Your task to perform on an android device: turn on the 24-hour format for clock Image 0: 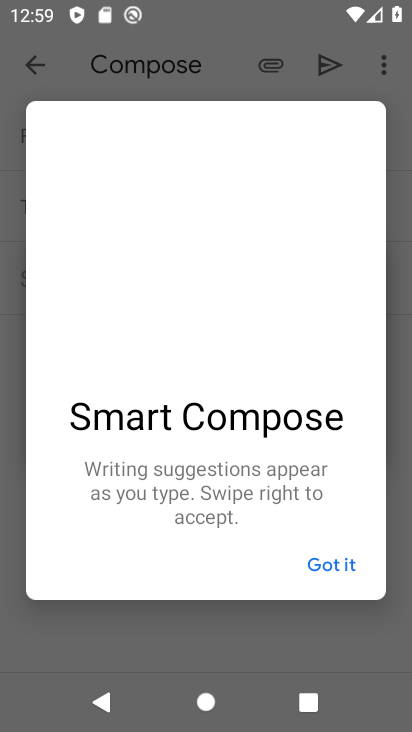
Step 0: press home button
Your task to perform on an android device: turn on the 24-hour format for clock Image 1: 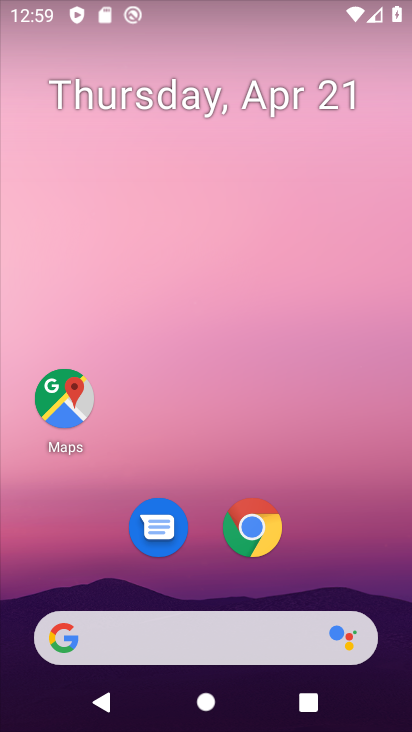
Step 1: drag from (230, 572) to (283, 53)
Your task to perform on an android device: turn on the 24-hour format for clock Image 2: 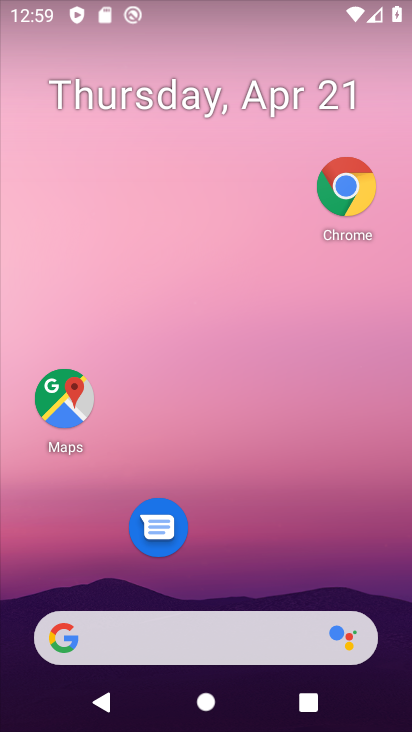
Step 2: drag from (223, 446) to (261, 87)
Your task to perform on an android device: turn on the 24-hour format for clock Image 3: 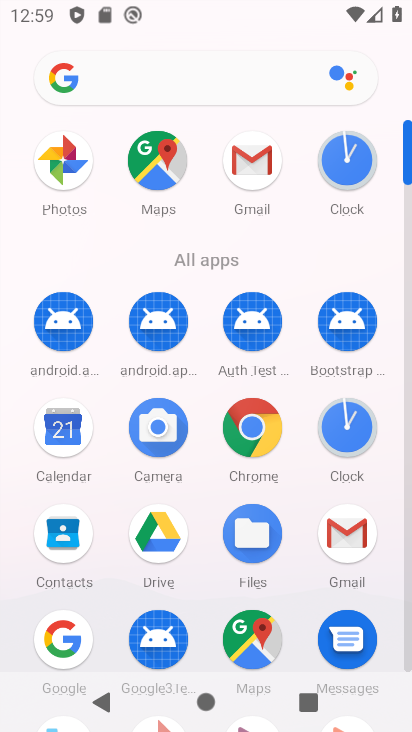
Step 3: click (358, 414)
Your task to perform on an android device: turn on the 24-hour format for clock Image 4: 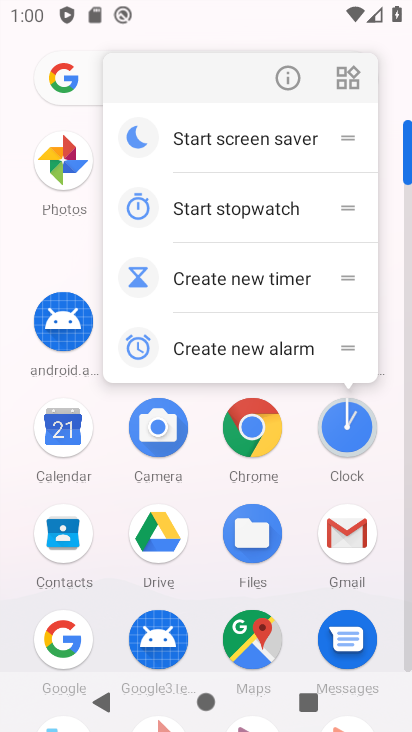
Step 4: click (292, 80)
Your task to perform on an android device: turn on the 24-hour format for clock Image 5: 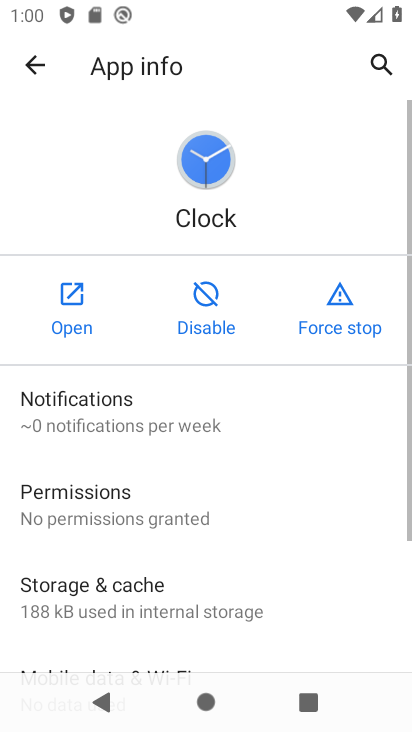
Step 5: click (78, 318)
Your task to perform on an android device: turn on the 24-hour format for clock Image 6: 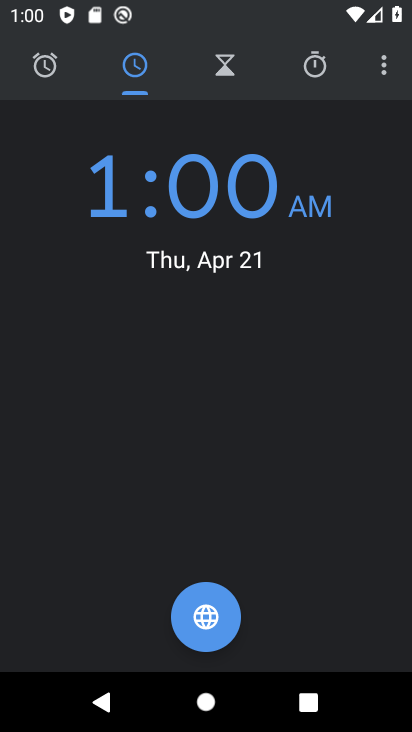
Step 6: drag from (374, 68) to (249, 125)
Your task to perform on an android device: turn on the 24-hour format for clock Image 7: 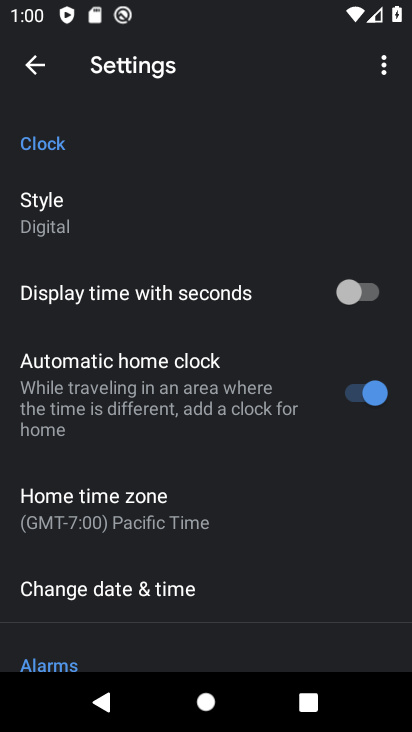
Step 7: drag from (227, 565) to (241, 250)
Your task to perform on an android device: turn on the 24-hour format for clock Image 8: 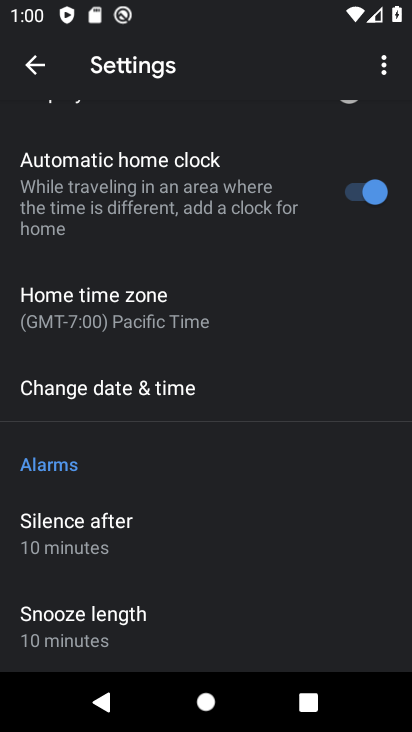
Step 8: click (131, 399)
Your task to perform on an android device: turn on the 24-hour format for clock Image 9: 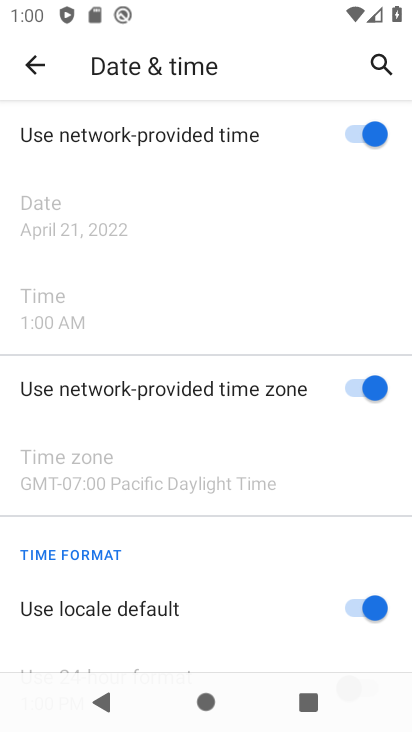
Step 9: drag from (290, 540) to (290, 256)
Your task to perform on an android device: turn on the 24-hour format for clock Image 10: 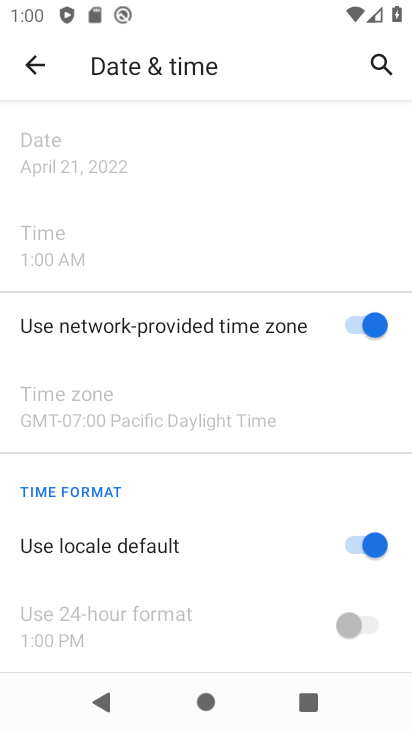
Step 10: click (360, 540)
Your task to perform on an android device: turn on the 24-hour format for clock Image 11: 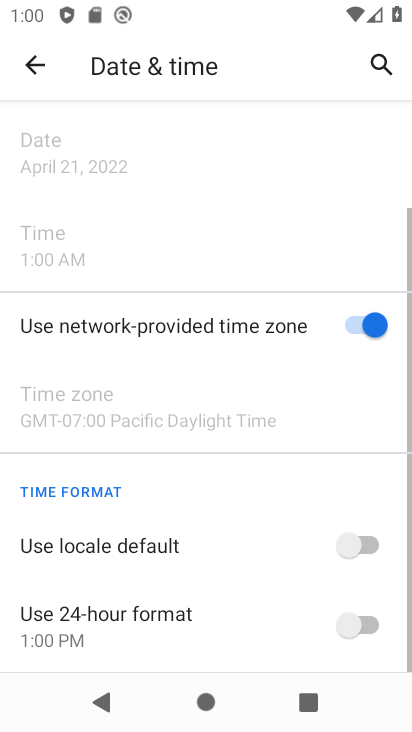
Step 11: click (344, 628)
Your task to perform on an android device: turn on the 24-hour format for clock Image 12: 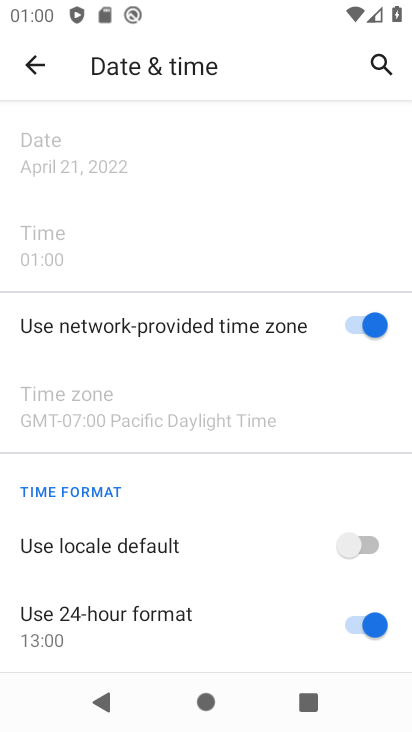
Step 12: task complete